Your task to perform on an android device: change the clock style Image 0: 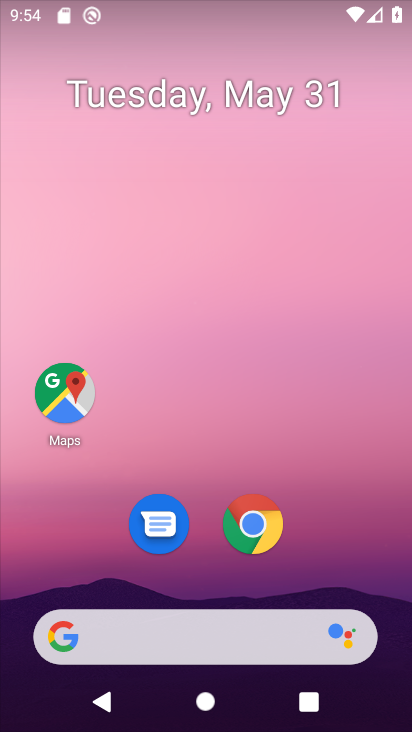
Step 0: drag from (241, 444) to (298, 4)
Your task to perform on an android device: change the clock style Image 1: 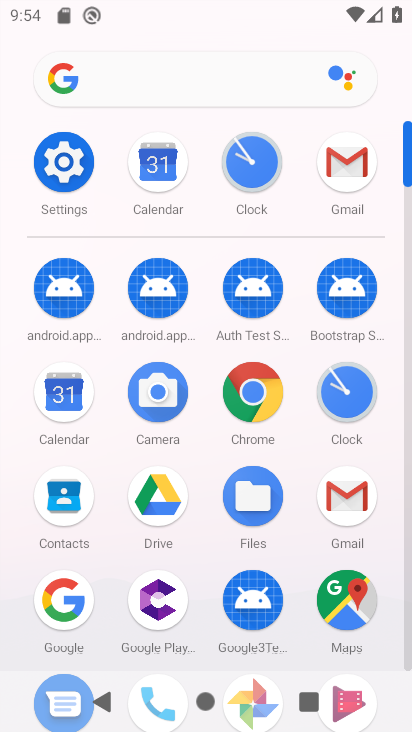
Step 1: click (246, 166)
Your task to perform on an android device: change the clock style Image 2: 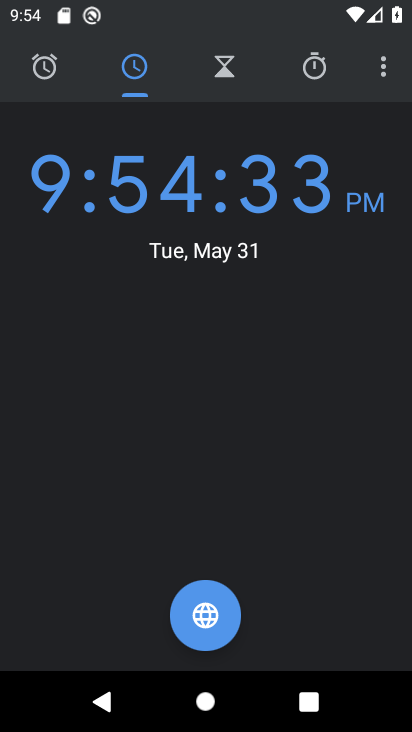
Step 2: click (387, 70)
Your task to perform on an android device: change the clock style Image 3: 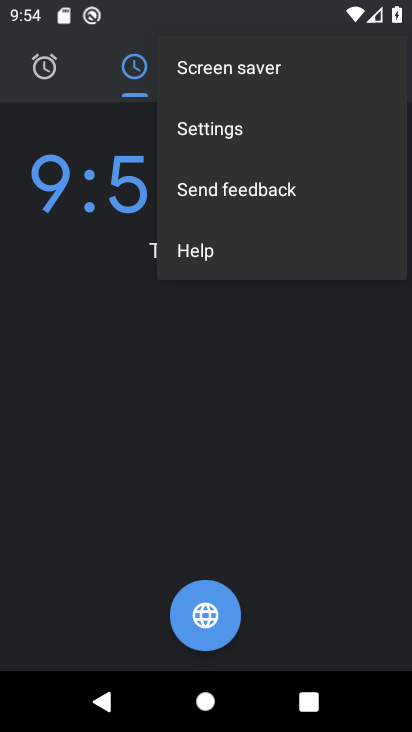
Step 3: click (293, 128)
Your task to perform on an android device: change the clock style Image 4: 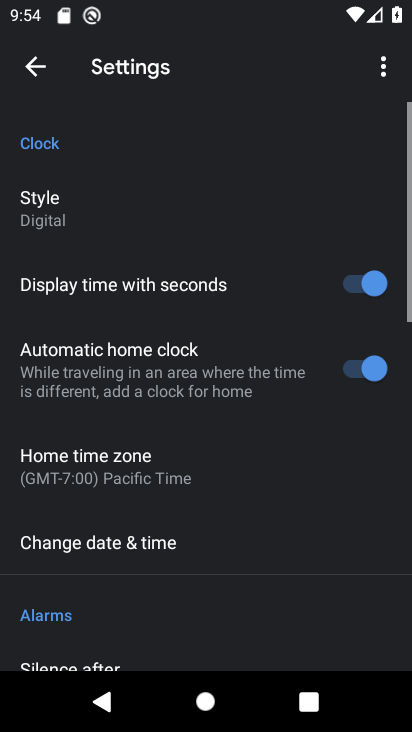
Step 4: click (138, 210)
Your task to perform on an android device: change the clock style Image 5: 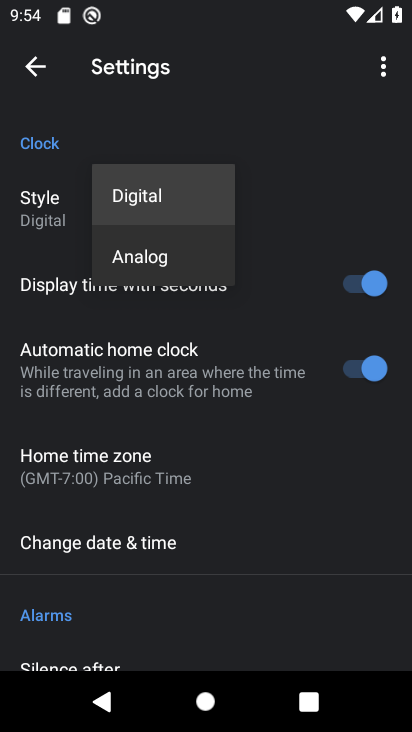
Step 5: click (161, 249)
Your task to perform on an android device: change the clock style Image 6: 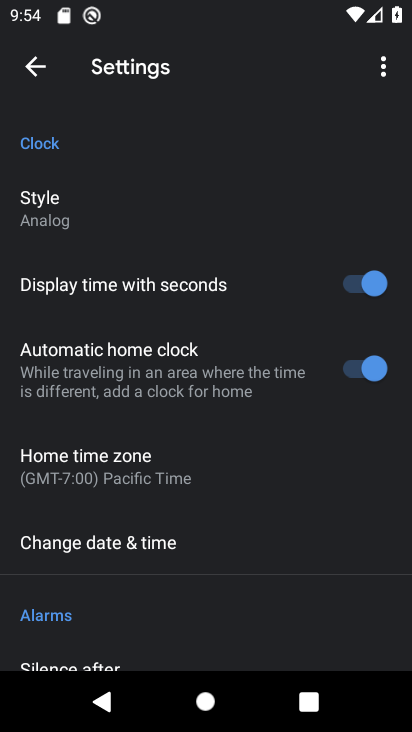
Step 6: click (45, 62)
Your task to perform on an android device: change the clock style Image 7: 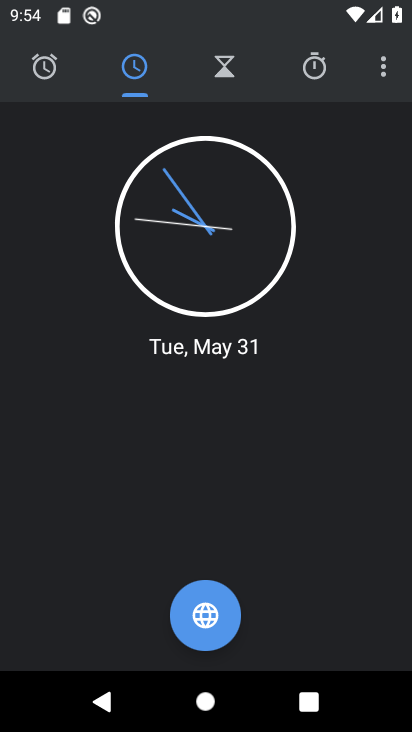
Step 7: task complete